Your task to perform on an android device: Go to Google maps Image 0: 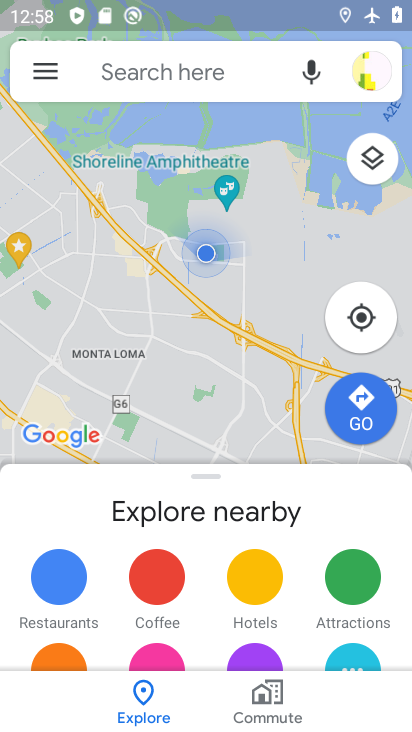
Step 0: press home button
Your task to perform on an android device: Go to Google maps Image 1: 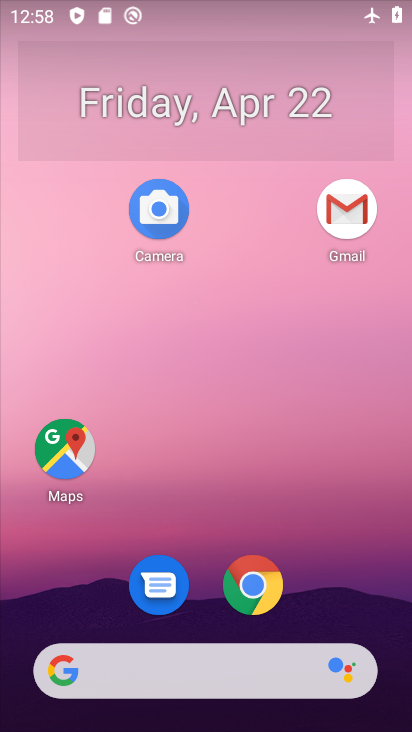
Step 1: click (61, 448)
Your task to perform on an android device: Go to Google maps Image 2: 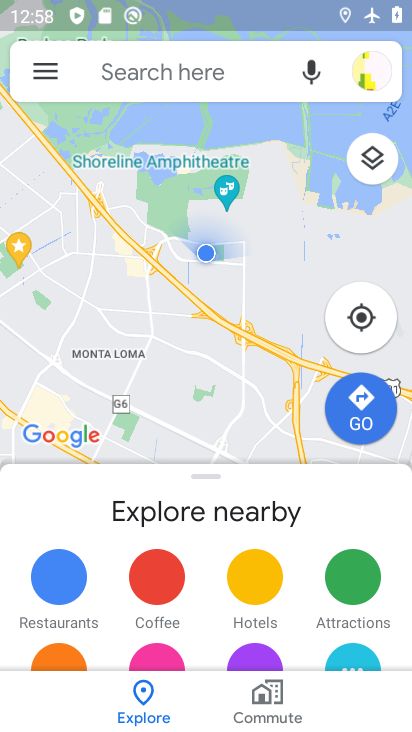
Step 2: task complete